Your task to perform on an android device: turn on data saver in the chrome app Image 0: 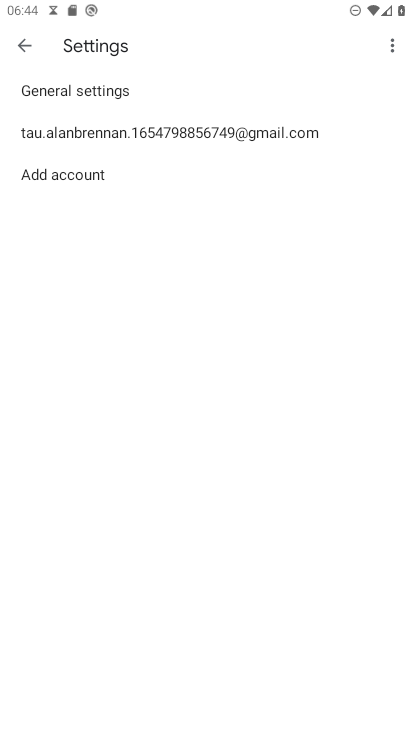
Step 0: press home button
Your task to perform on an android device: turn on data saver in the chrome app Image 1: 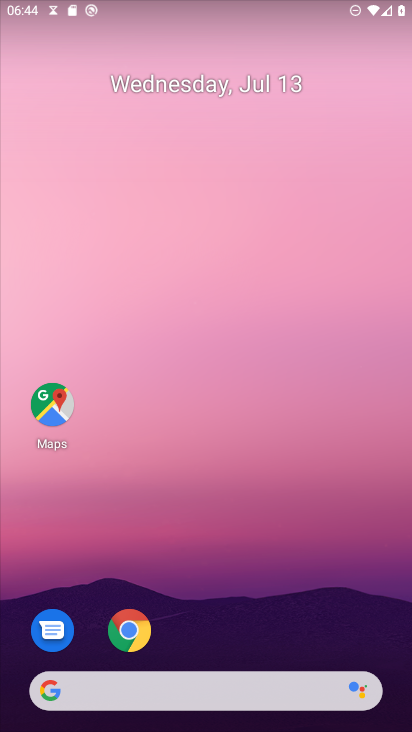
Step 1: drag from (238, 725) to (175, 76)
Your task to perform on an android device: turn on data saver in the chrome app Image 2: 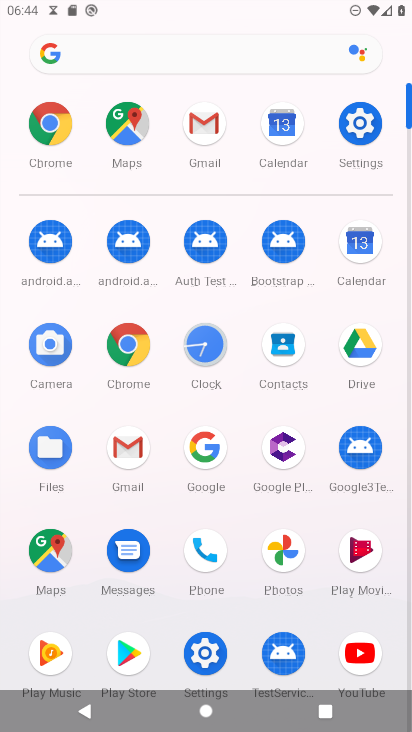
Step 2: click (120, 338)
Your task to perform on an android device: turn on data saver in the chrome app Image 3: 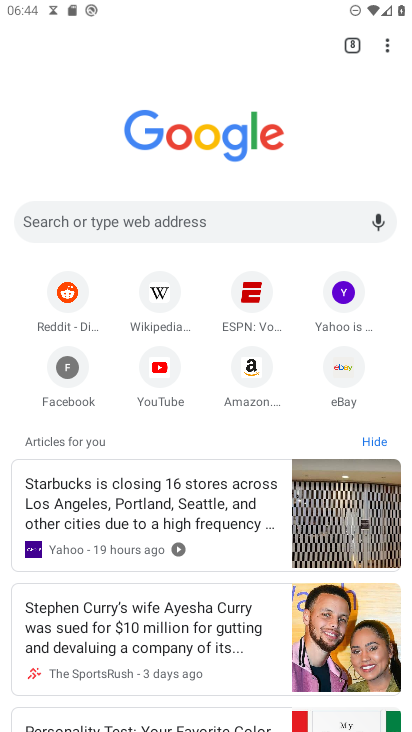
Step 3: drag from (380, 48) to (271, 386)
Your task to perform on an android device: turn on data saver in the chrome app Image 4: 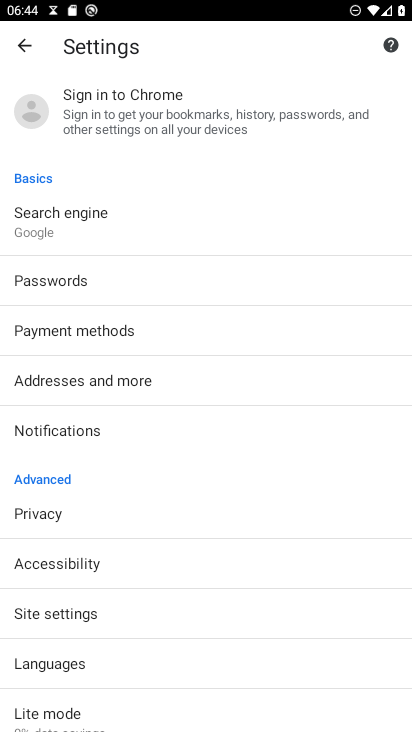
Step 4: drag from (87, 632) to (107, 354)
Your task to perform on an android device: turn on data saver in the chrome app Image 5: 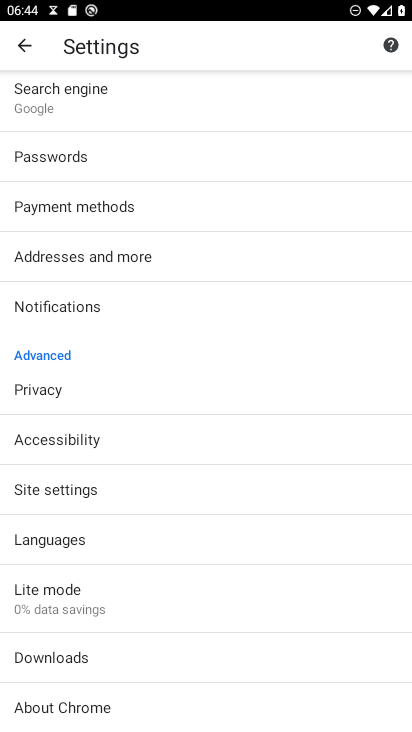
Step 5: click (77, 581)
Your task to perform on an android device: turn on data saver in the chrome app Image 6: 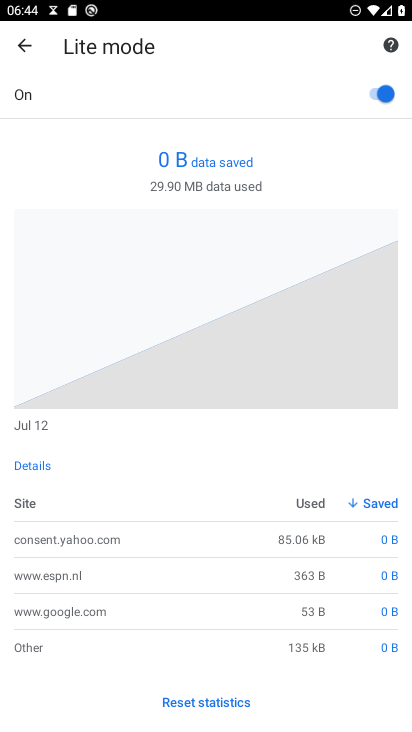
Step 6: task complete